Your task to perform on an android device: toggle improve location accuracy Image 0: 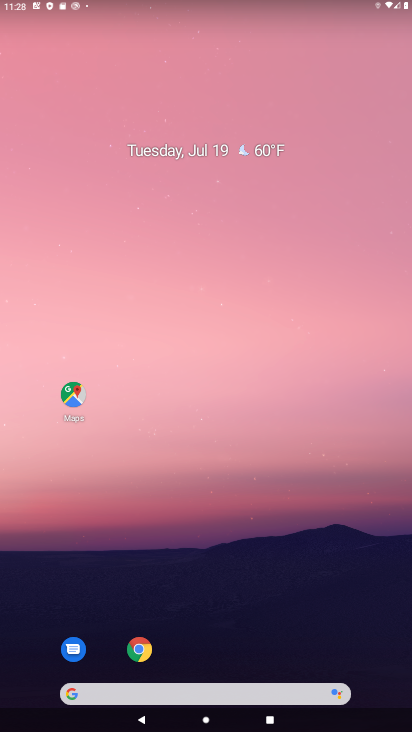
Step 0: drag from (181, 679) to (141, 382)
Your task to perform on an android device: toggle improve location accuracy Image 1: 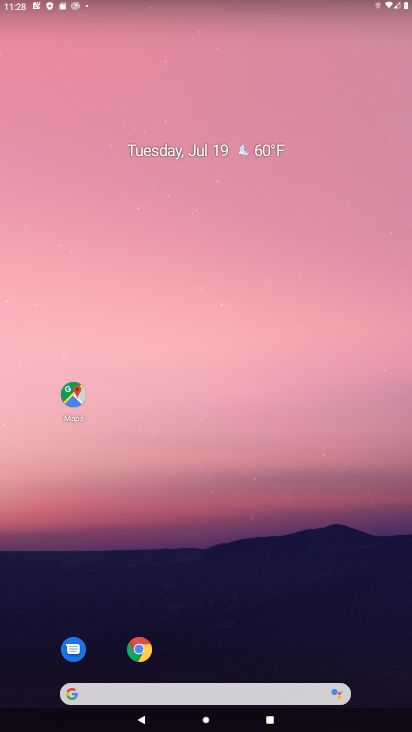
Step 1: drag from (194, 691) to (172, 233)
Your task to perform on an android device: toggle improve location accuracy Image 2: 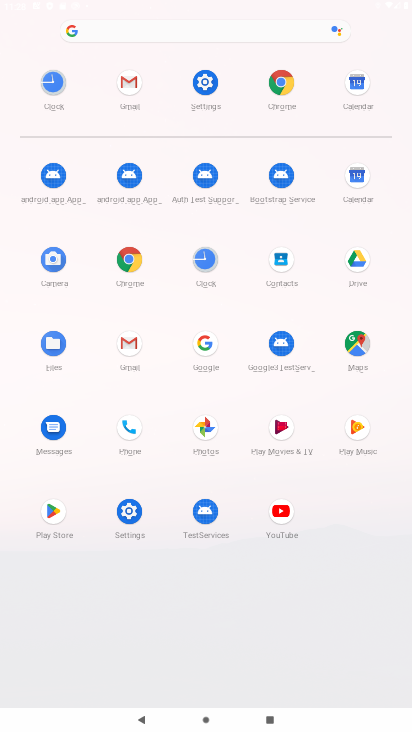
Step 2: click (218, 79)
Your task to perform on an android device: toggle improve location accuracy Image 3: 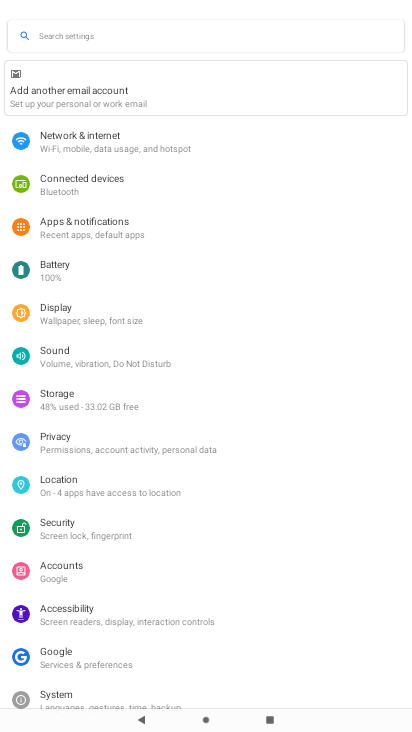
Step 3: click (78, 495)
Your task to perform on an android device: toggle improve location accuracy Image 4: 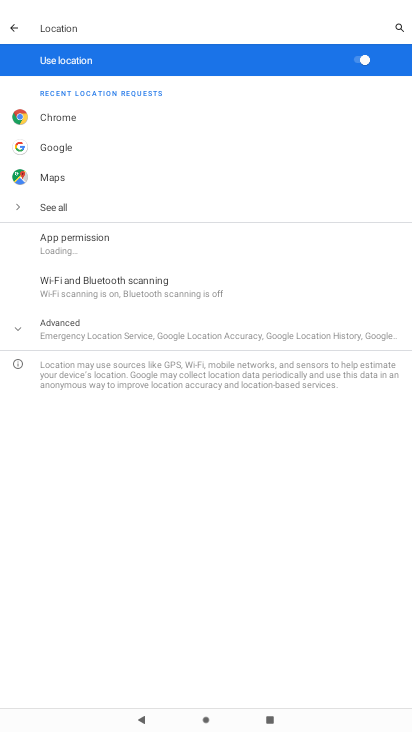
Step 4: click (77, 324)
Your task to perform on an android device: toggle improve location accuracy Image 5: 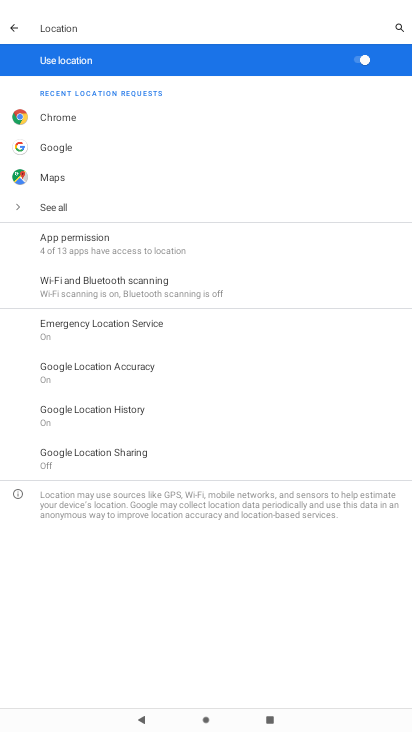
Step 5: click (130, 405)
Your task to perform on an android device: toggle improve location accuracy Image 6: 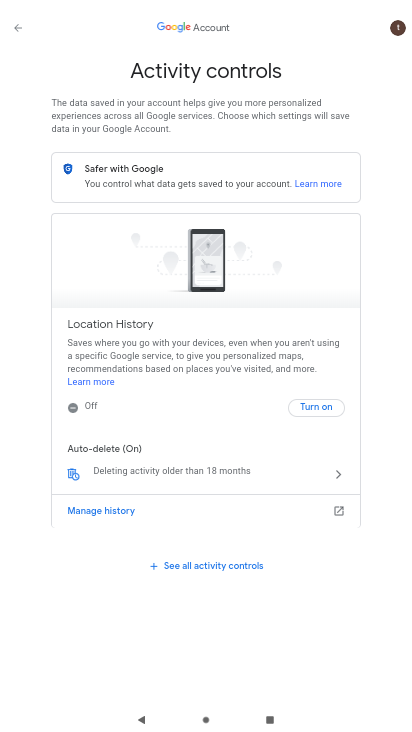
Step 6: click (309, 407)
Your task to perform on an android device: toggle improve location accuracy Image 7: 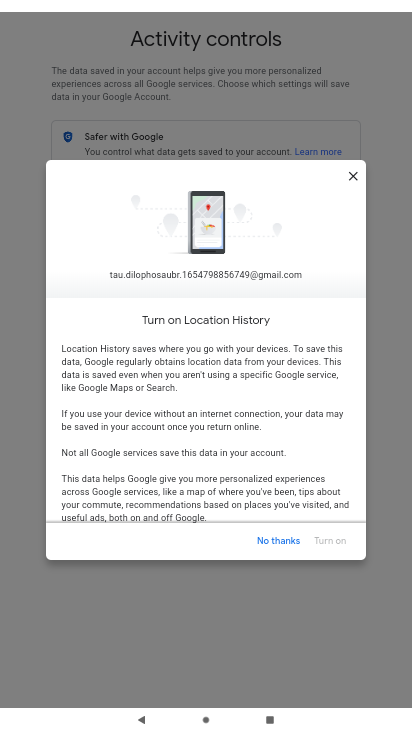
Step 7: drag from (303, 462) to (276, 131)
Your task to perform on an android device: toggle improve location accuracy Image 8: 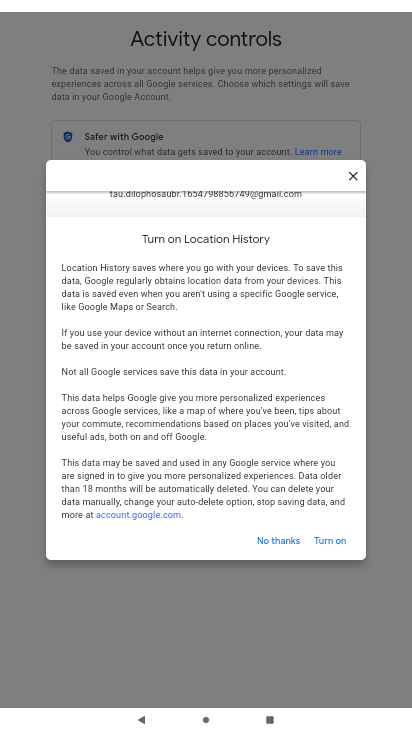
Step 8: click (326, 538)
Your task to perform on an android device: toggle improve location accuracy Image 9: 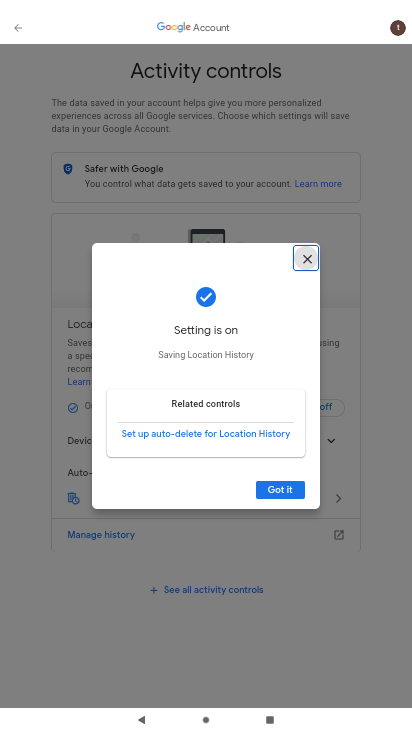
Step 9: click (268, 490)
Your task to perform on an android device: toggle improve location accuracy Image 10: 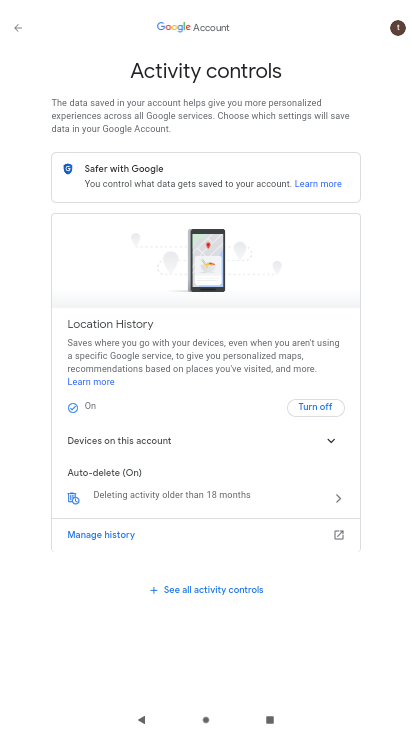
Step 10: task complete